Your task to perform on an android device: Open wifi settings Image 0: 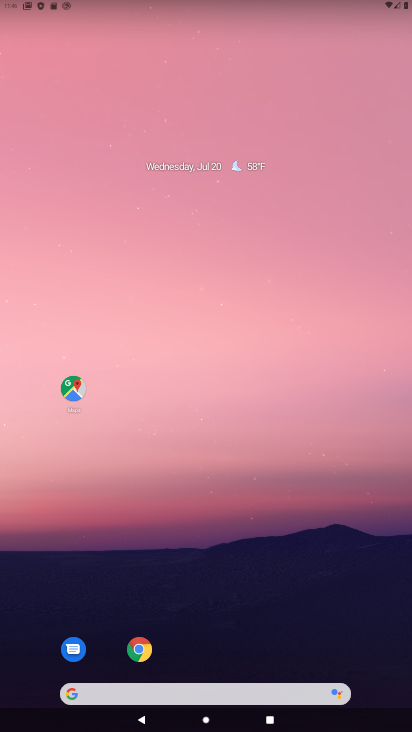
Step 0: drag from (210, 619) to (238, 121)
Your task to perform on an android device: Open wifi settings Image 1: 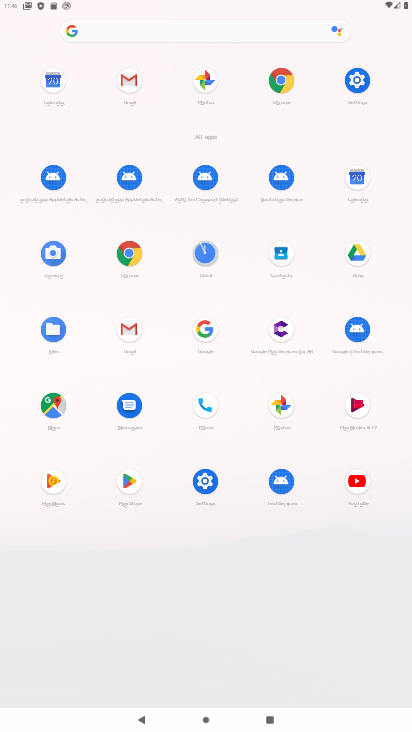
Step 1: click (357, 77)
Your task to perform on an android device: Open wifi settings Image 2: 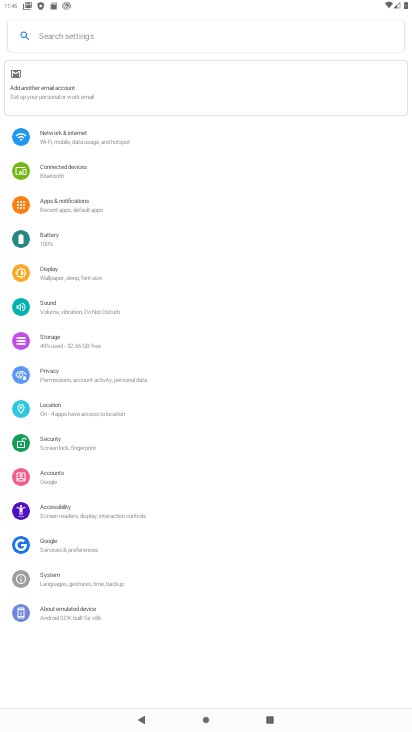
Step 2: click (91, 131)
Your task to perform on an android device: Open wifi settings Image 3: 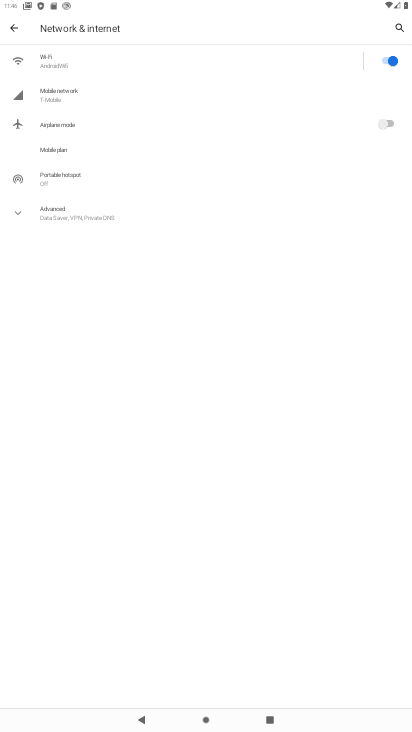
Step 3: click (107, 58)
Your task to perform on an android device: Open wifi settings Image 4: 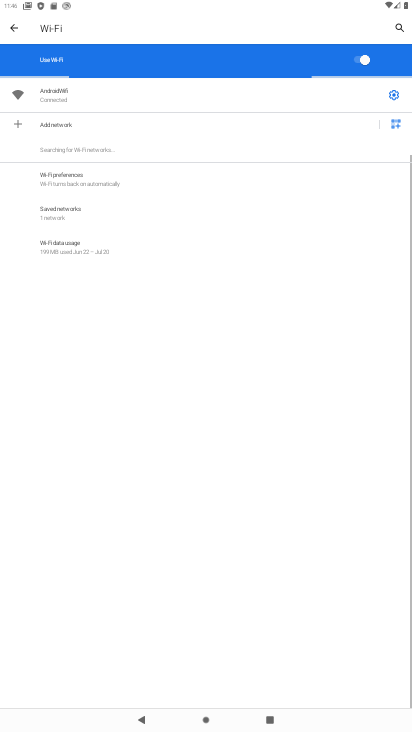
Step 4: click (167, 101)
Your task to perform on an android device: Open wifi settings Image 5: 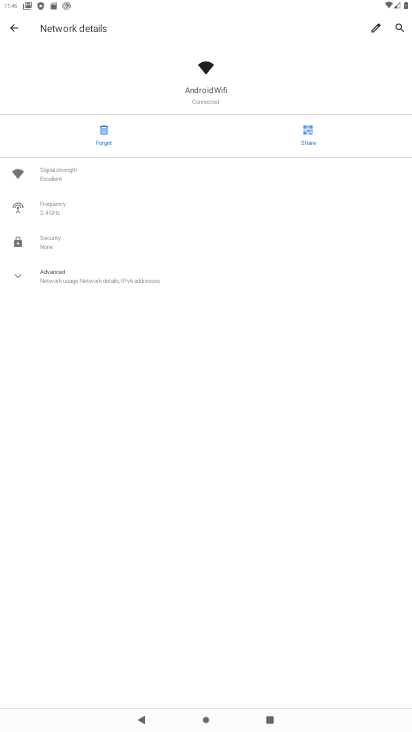
Step 5: task complete